Your task to perform on an android device: turn off priority inbox in the gmail app Image 0: 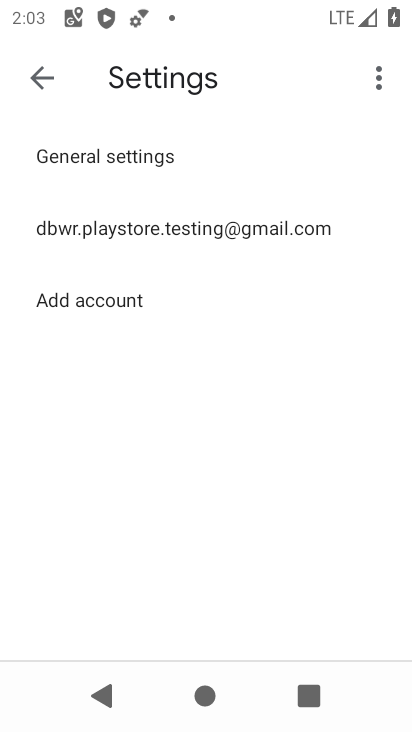
Step 0: press home button
Your task to perform on an android device: turn off priority inbox in the gmail app Image 1: 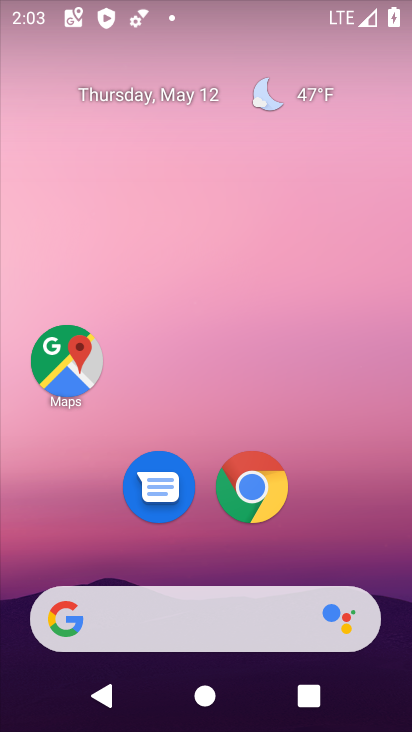
Step 1: drag from (308, 436) to (248, 85)
Your task to perform on an android device: turn off priority inbox in the gmail app Image 2: 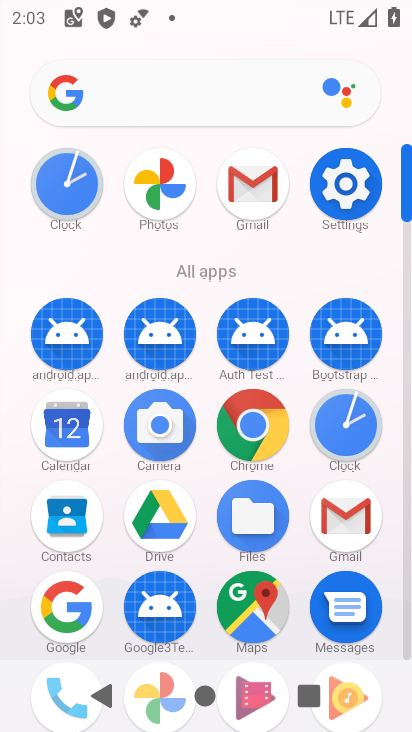
Step 2: click (268, 173)
Your task to perform on an android device: turn off priority inbox in the gmail app Image 3: 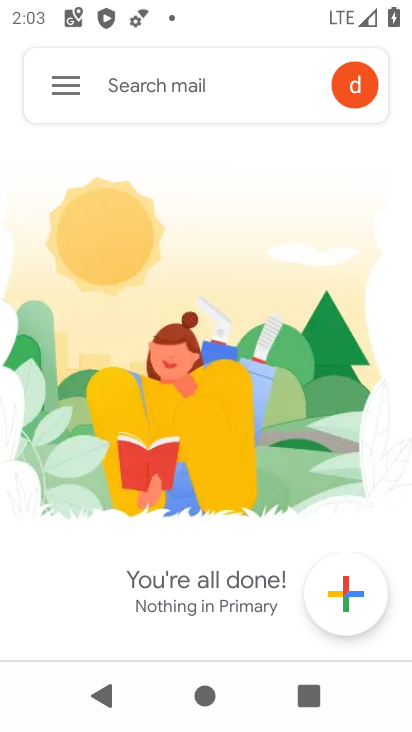
Step 3: click (54, 89)
Your task to perform on an android device: turn off priority inbox in the gmail app Image 4: 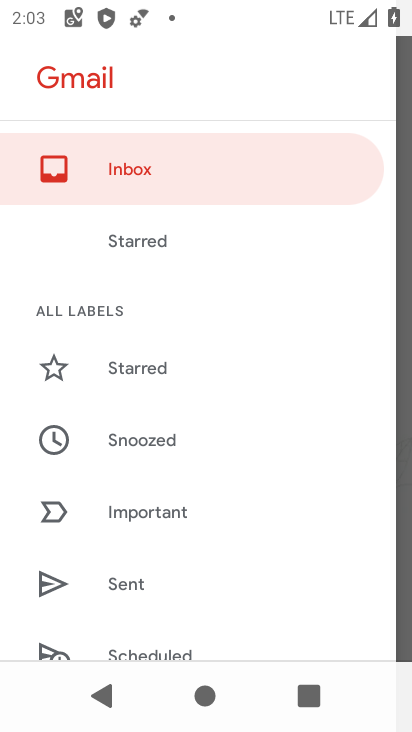
Step 4: drag from (199, 598) to (124, 139)
Your task to perform on an android device: turn off priority inbox in the gmail app Image 5: 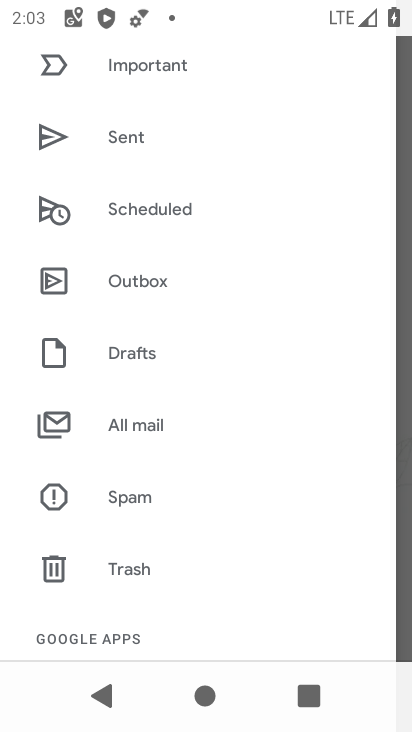
Step 5: drag from (196, 561) to (184, 191)
Your task to perform on an android device: turn off priority inbox in the gmail app Image 6: 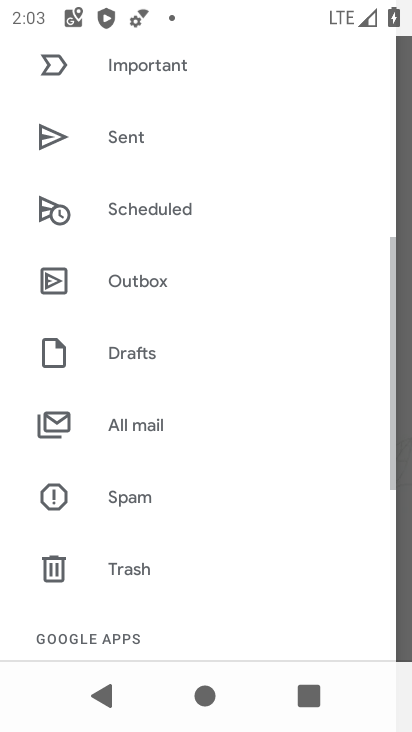
Step 6: drag from (79, 466) to (163, 98)
Your task to perform on an android device: turn off priority inbox in the gmail app Image 7: 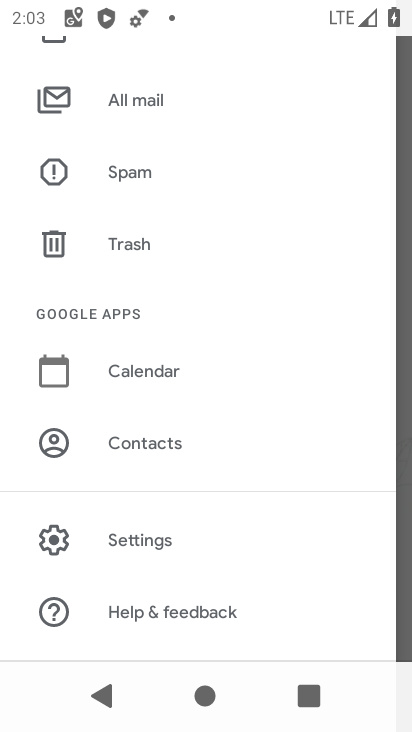
Step 7: click (154, 559)
Your task to perform on an android device: turn off priority inbox in the gmail app Image 8: 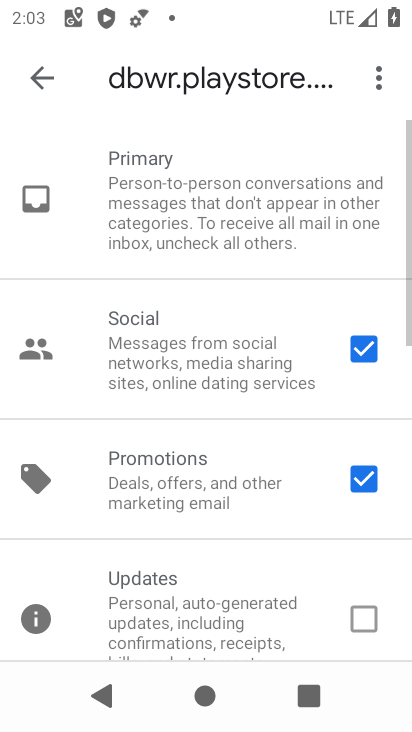
Step 8: drag from (154, 559) to (204, 172)
Your task to perform on an android device: turn off priority inbox in the gmail app Image 9: 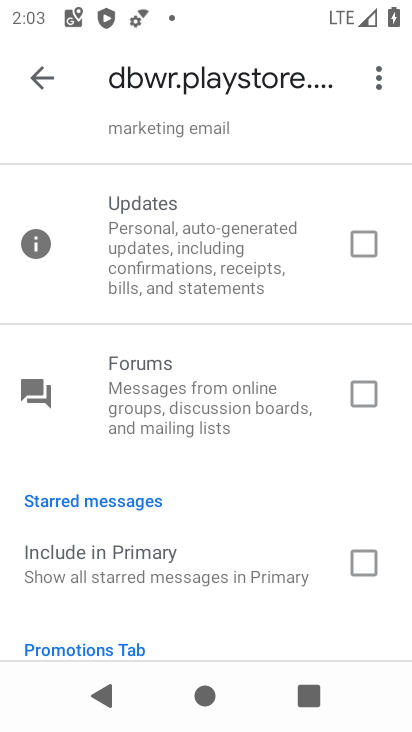
Step 9: drag from (318, 539) to (289, 201)
Your task to perform on an android device: turn off priority inbox in the gmail app Image 10: 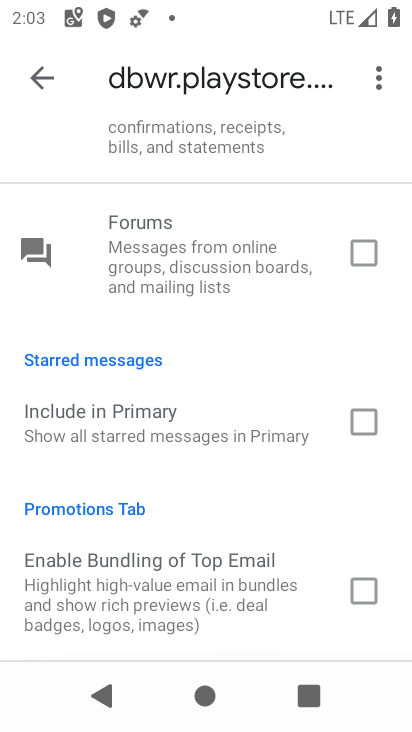
Step 10: drag from (189, 526) to (208, 339)
Your task to perform on an android device: turn off priority inbox in the gmail app Image 11: 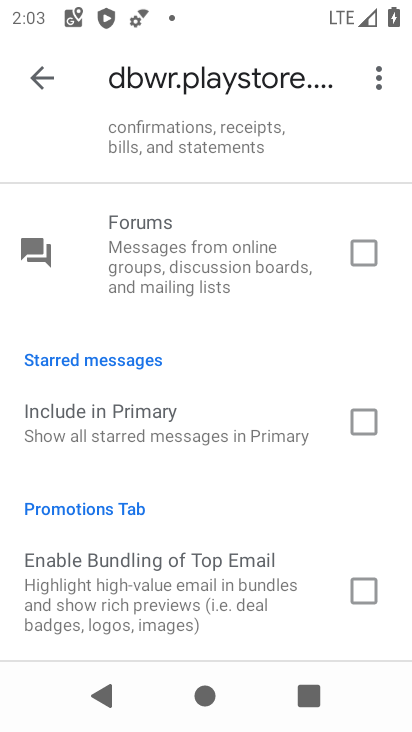
Step 11: drag from (276, 318) to (308, 516)
Your task to perform on an android device: turn off priority inbox in the gmail app Image 12: 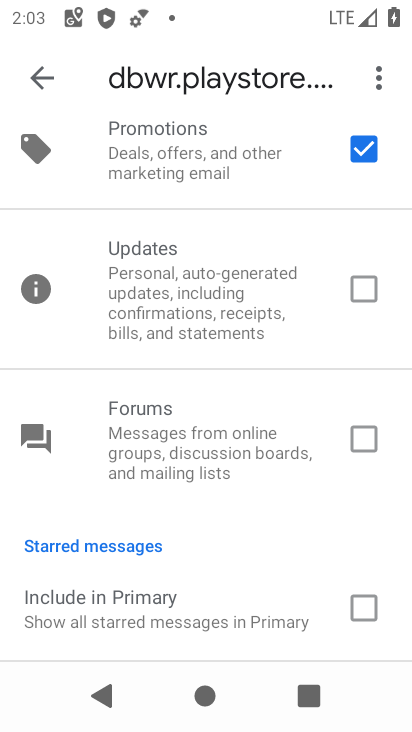
Step 12: drag from (240, 290) to (274, 476)
Your task to perform on an android device: turn off priority inbox in the gmail app Image 13: 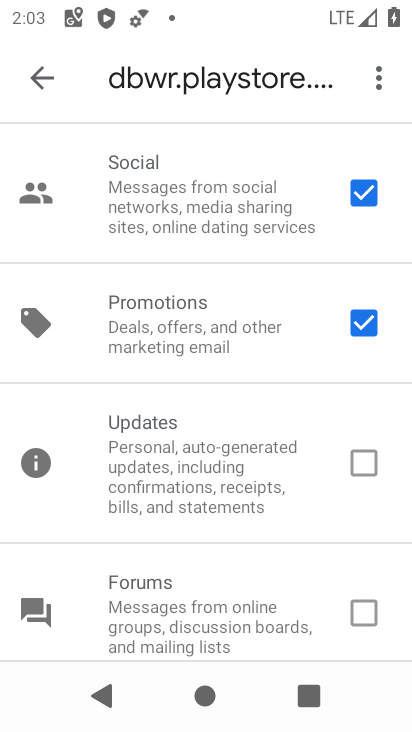
Step 13: drag from (218, 302) to (243, 464)
Your task to perform on an android device: turn off priority inbox in the gmail app Image 14: 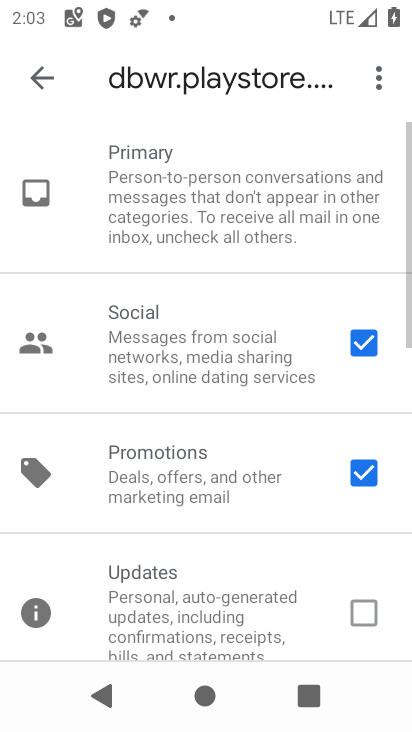
Step 14: drag from (197, 303) to (195, 449)
Your task to perform on an android device: turn off priority inbox in the gmail app Image 15: 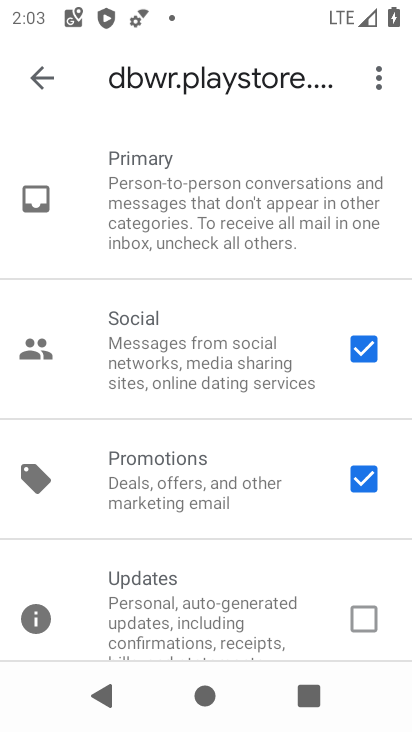
Step 15: drag from (153, 276) to (168, 402)
Your task to perform on an android device: turn off priority inbox in the gmail app Image 16: 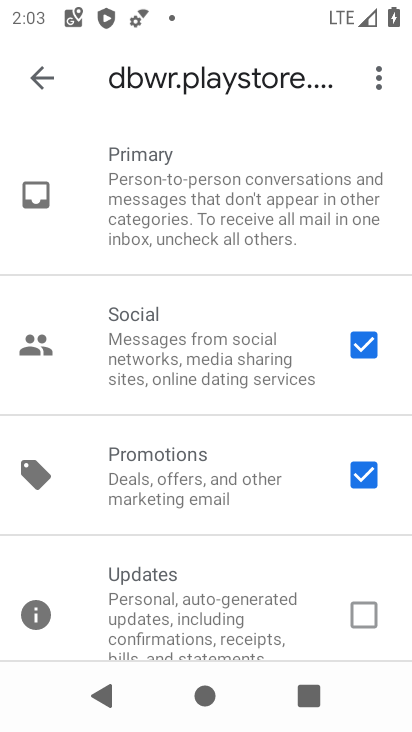
Step 16: click (32, 89)
Your task to perform on an android device: turn off priority inbox in the gmail app Image 17: 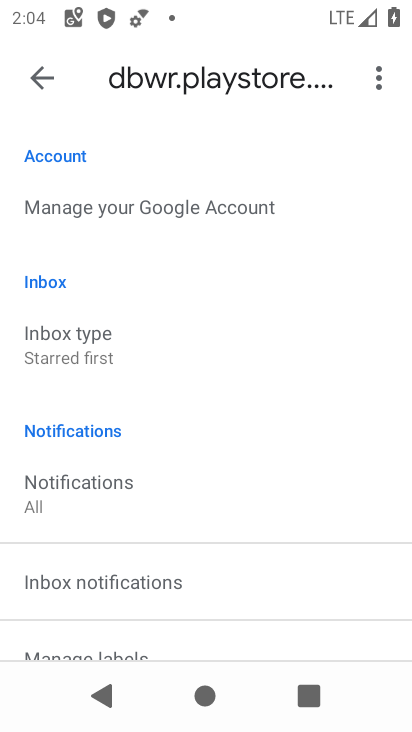
Step 17: drag from (290, 477) to (222, 1)
Your task to perform on an android device: turn off priority inbox in the gmail app Image 18: 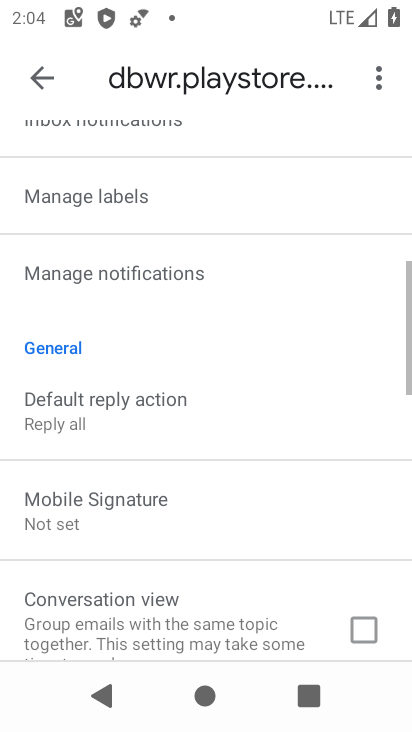
Step 18: drag from (218, 586) to (244, 95)
Your task to perform on an android device: turn off priority inbox in the gmail app Image 19: 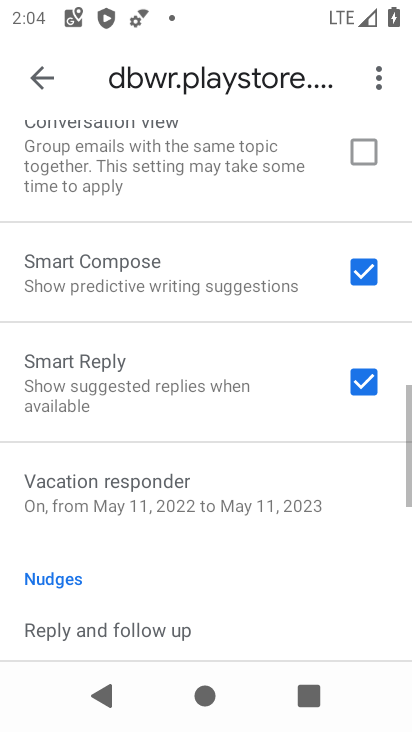
Step 19: drag from (184, 151) to (316, 618)
Your task to perform on an android device: turn off priority inbox in the gmail app Image 20: 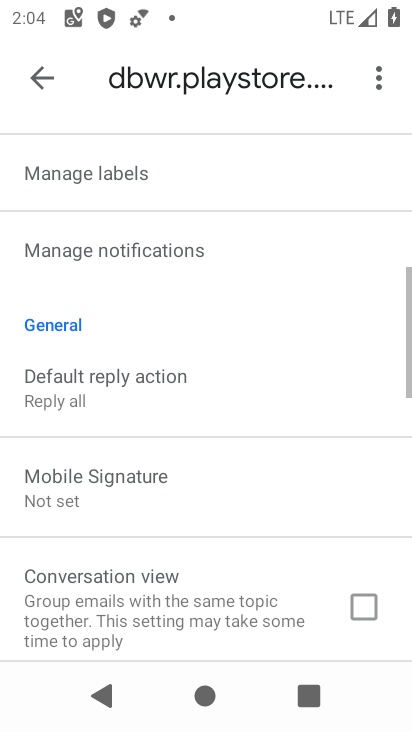
Step 20: drag from (241, 206) to (299, 600)
Your task to perform on an android device: turn off priority inbox in the gmail app Image 21: 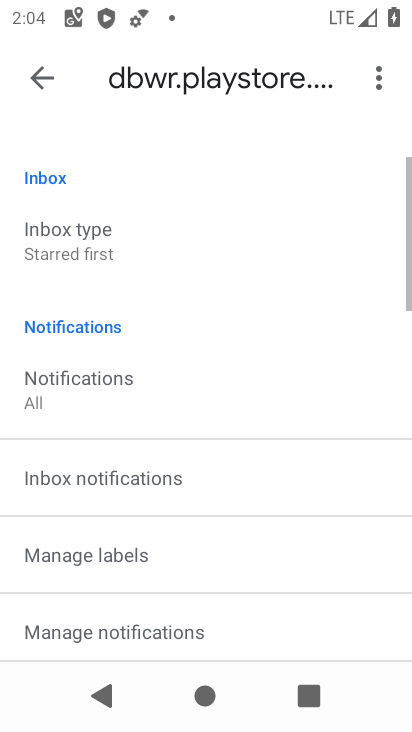
Step 21: drag from (261, 512) to (287, 663)
Your task to perform on an android device: turn off priority inbox in the gmail app Image 22: 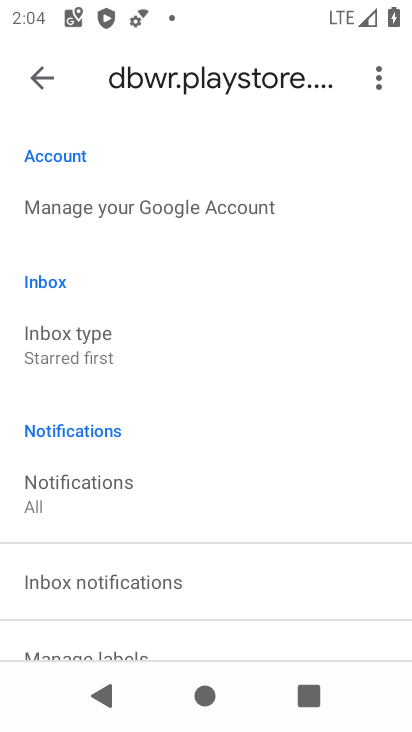
Step 22: drag from (100, 222) to (216, 618)
Your task to perform on an android device: turn off priority inbox in the gmail app Image 23: 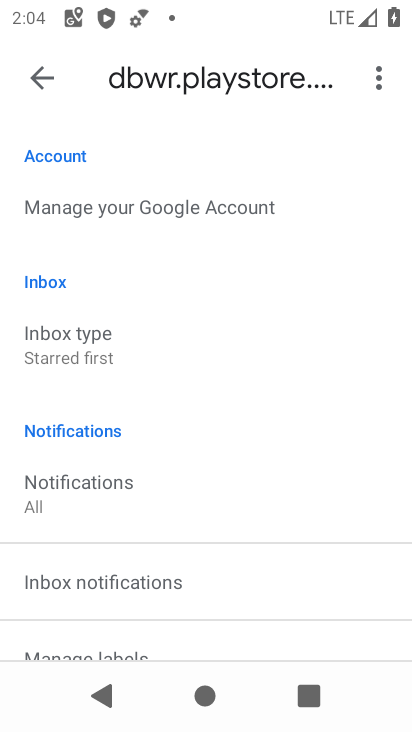
Step 23: click (76, 340)
Your task to perform on an android device: turn off priority inbox in the gmail app Image 24: 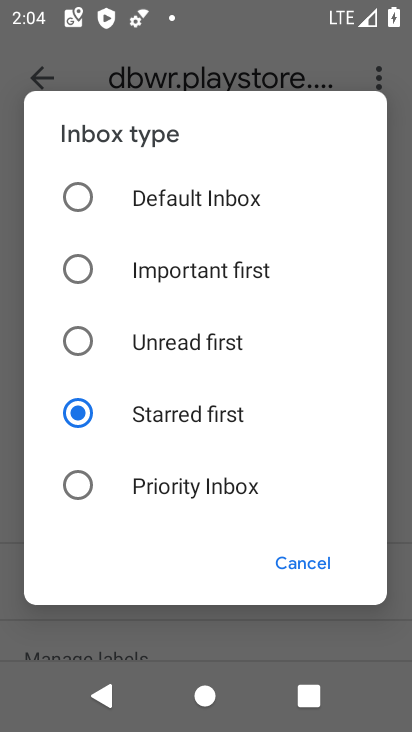
Step 24: task complete